Your task to perform on an android device: Search for Italian restaurants on Maps Image 0: 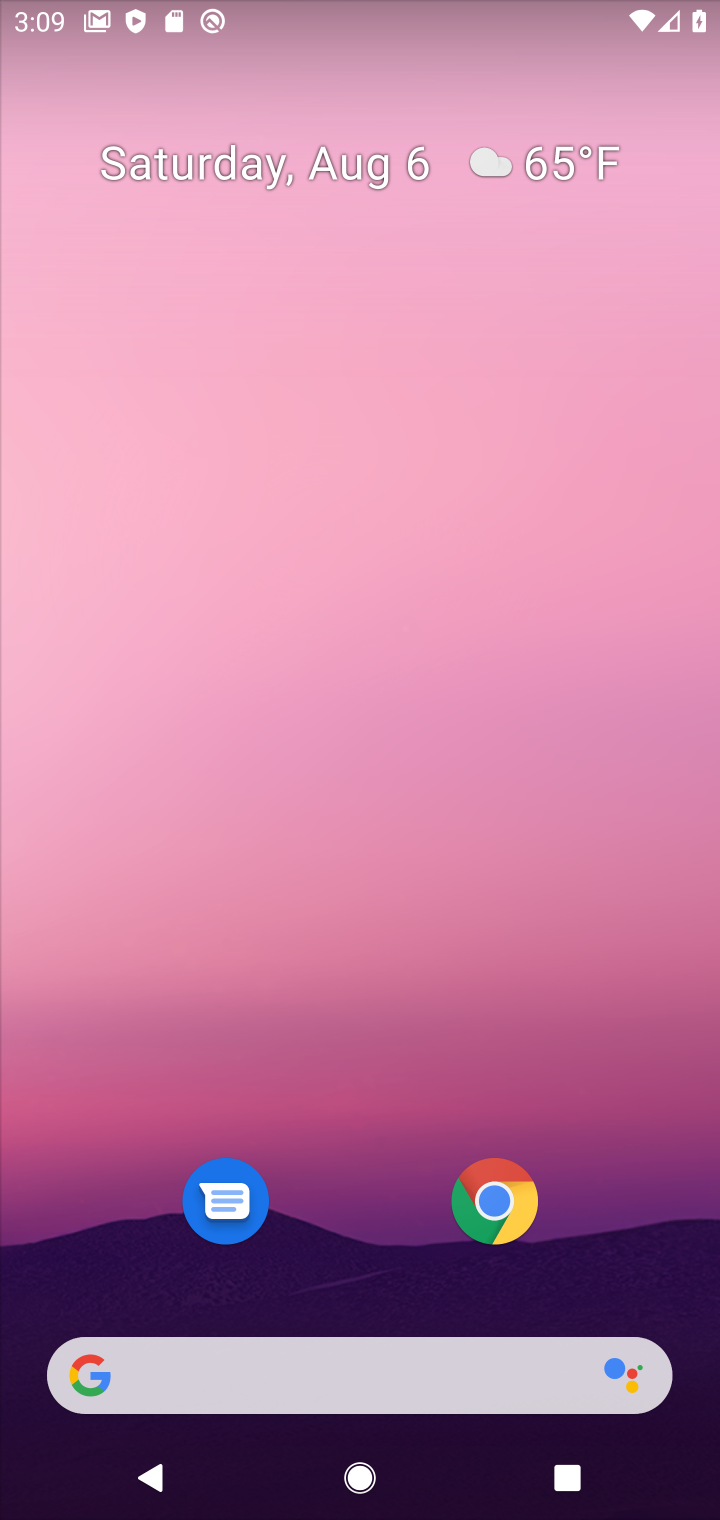
Step 0: drag from (489, 540) to (493, 65)
Your task to perform on an android device: Search for Italian restaurants on Maps Image 1: 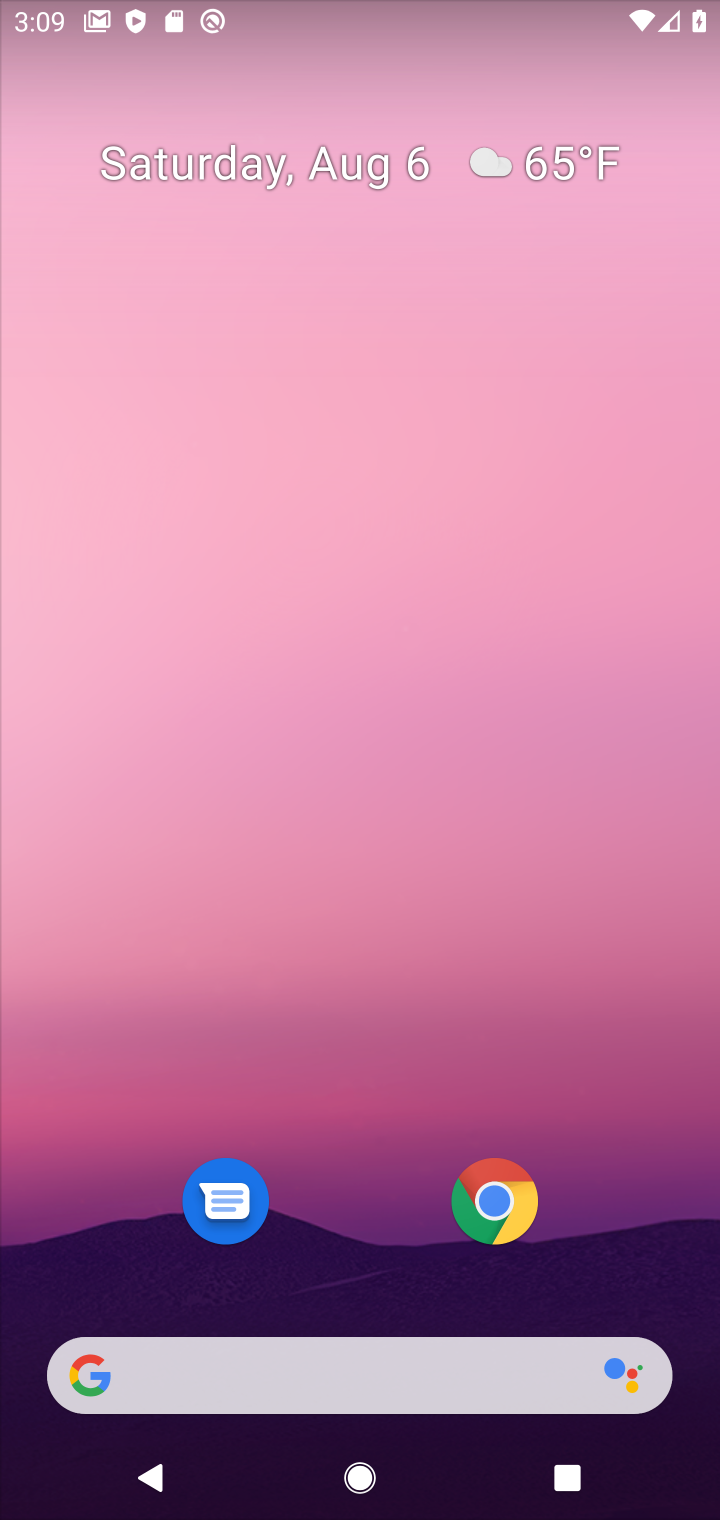
Step 1: drag from (559, 6) to (703, 994)
Your task to perform on an android device: Search for Italian restaurants on Maps Image 2: 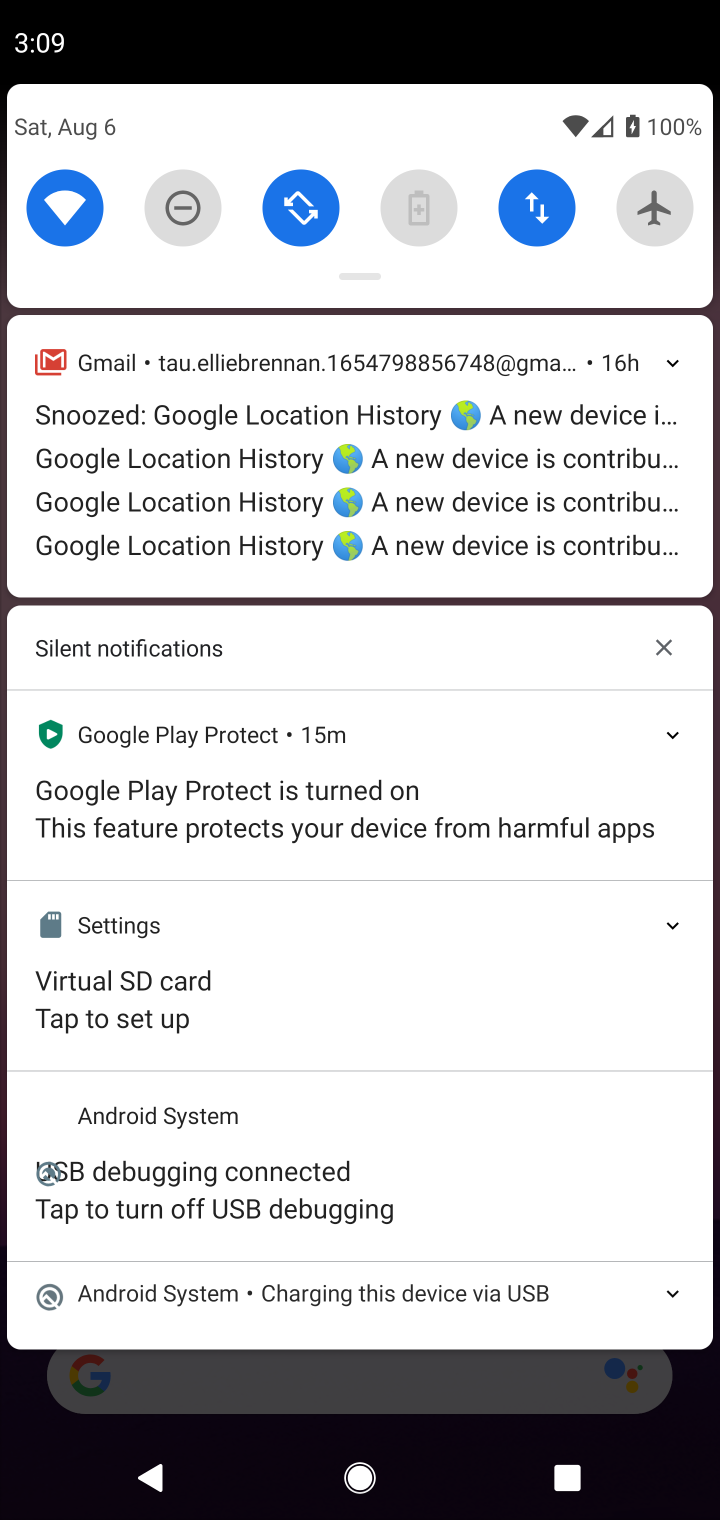
Step 2: drag from (483, 1476) to (703, 602)
Your task to perform on an android device: Search for Italian restaurants on Maps Image 3: 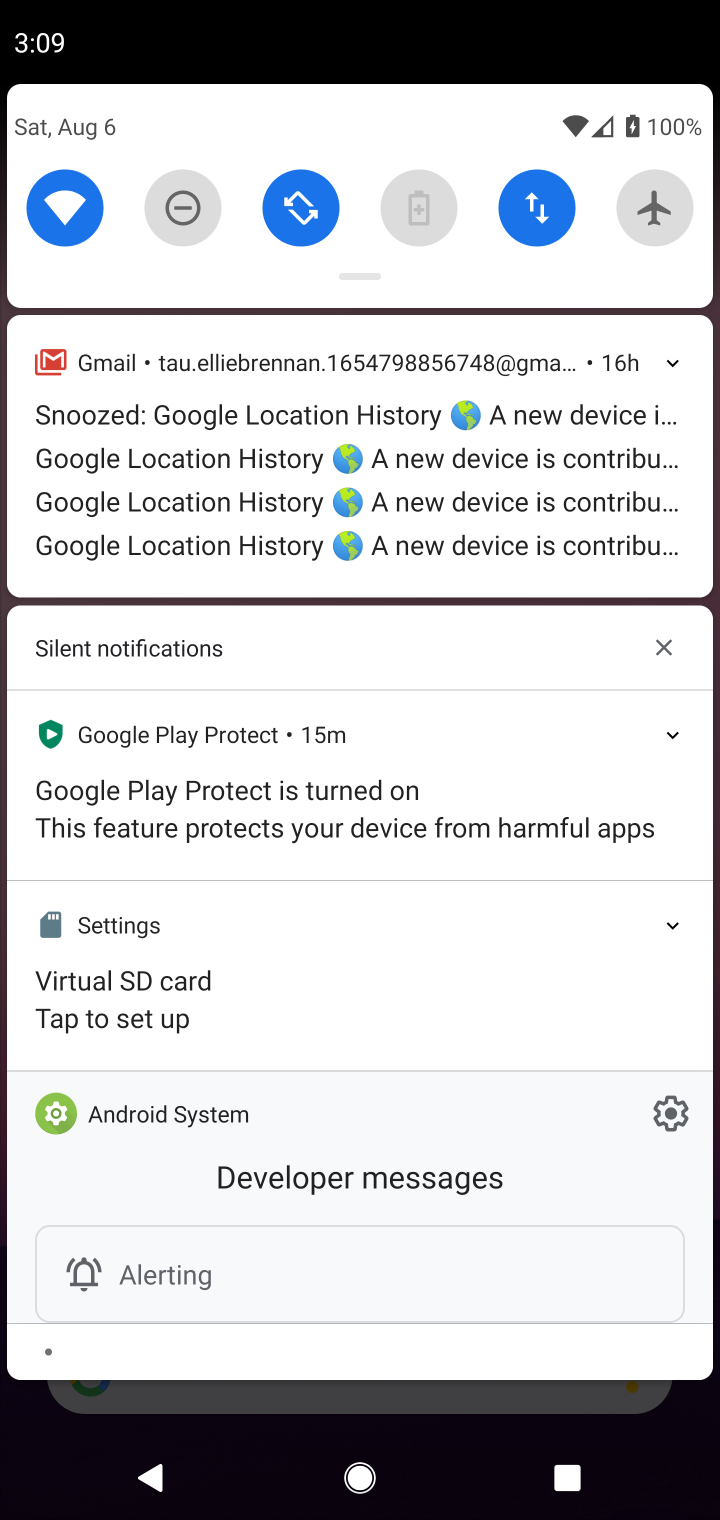
Step 3: press home button
Your task to perform on an android device: Search for Italian restaurants on Maps Image 4: 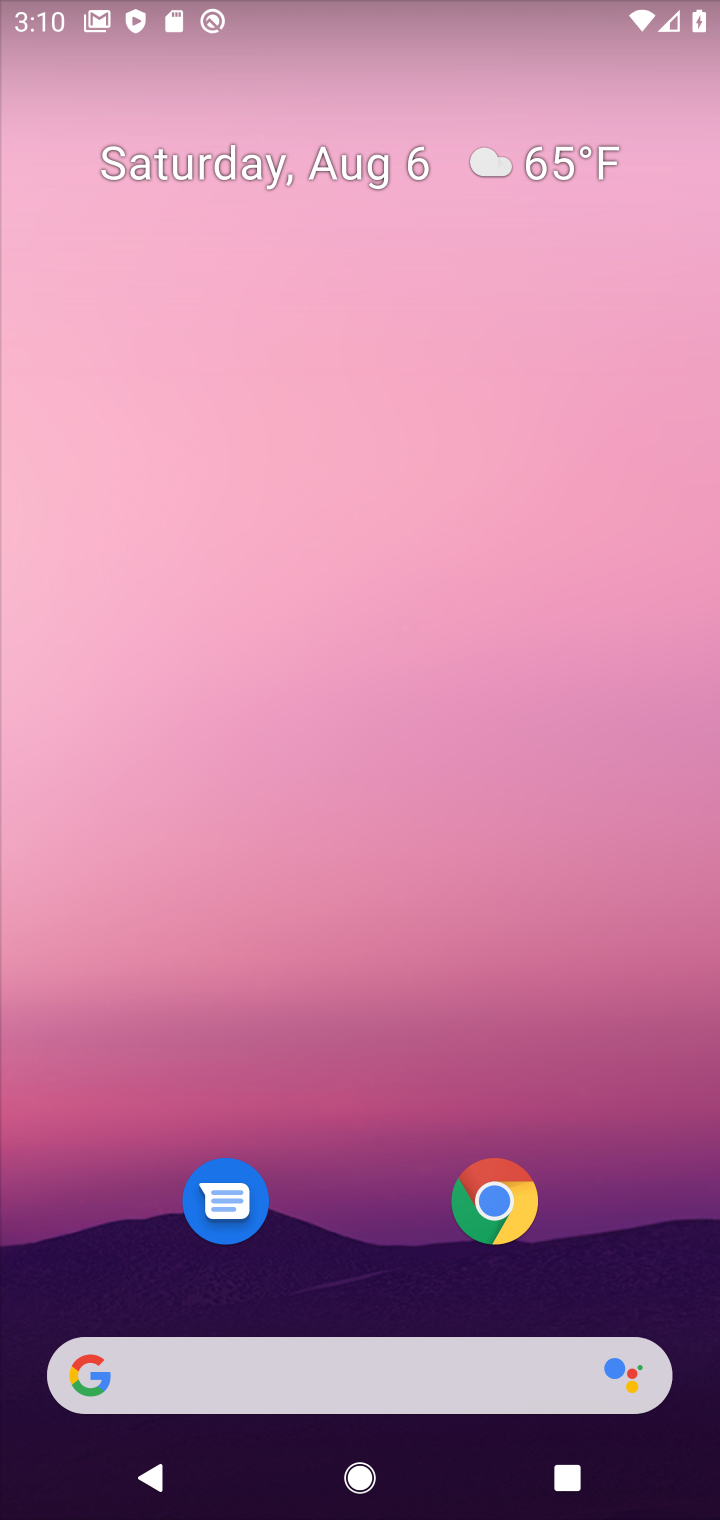
Step 4: drag from (254, 823) to (472, 185)
Your task to perform on an android device: Search for Italian restaurants on Maps Image 5: 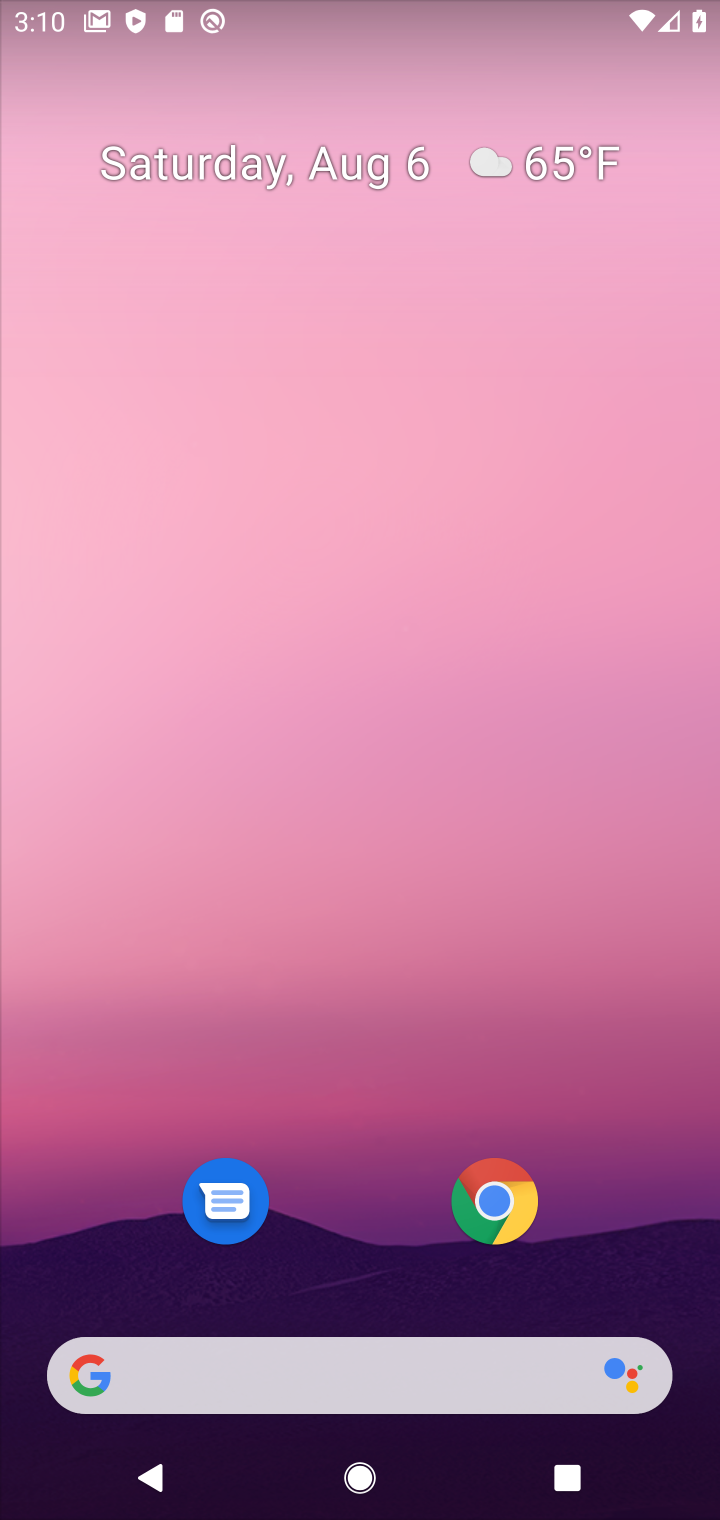
Step 5: drag from (218, 1058) to (528, 294)
Your task to perform on an android device: Search for Italian restaurants on Maps Image 6: 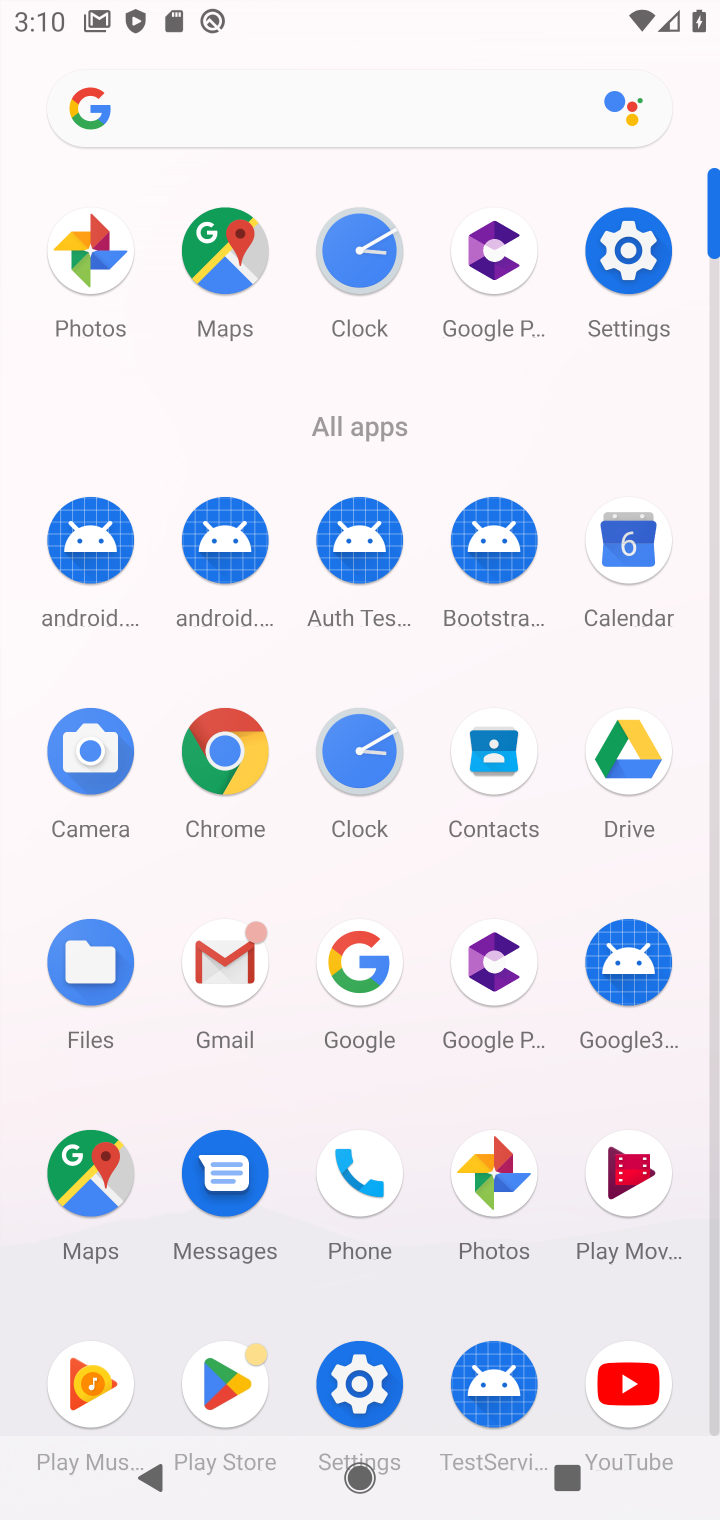
Step 6: click (221, 264)
Your task to perform on an android device: Search for Italian restaurants on Maps Image 7: 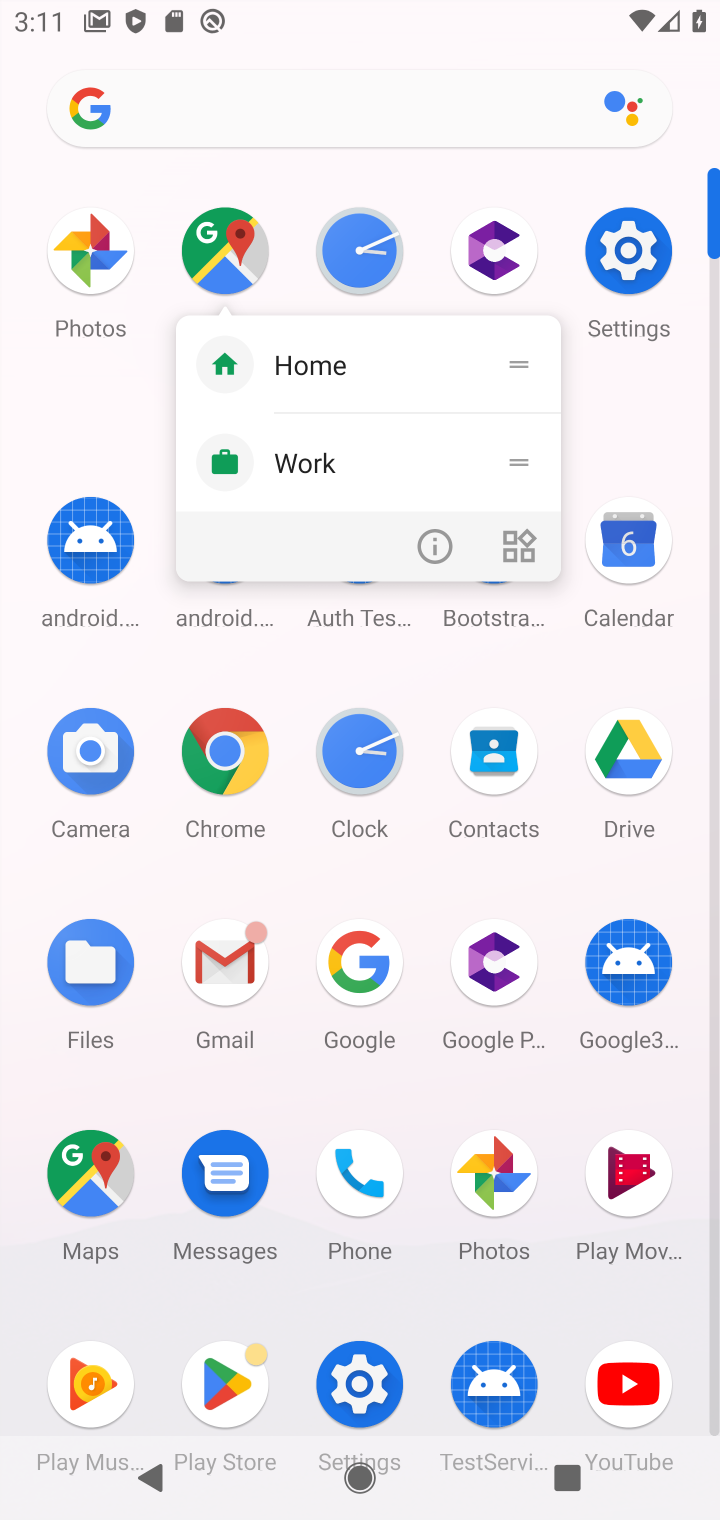
Step 7: click (211, 259)
Your task to perform on an android device: Search for Italian restaurants on Maps Image 8: 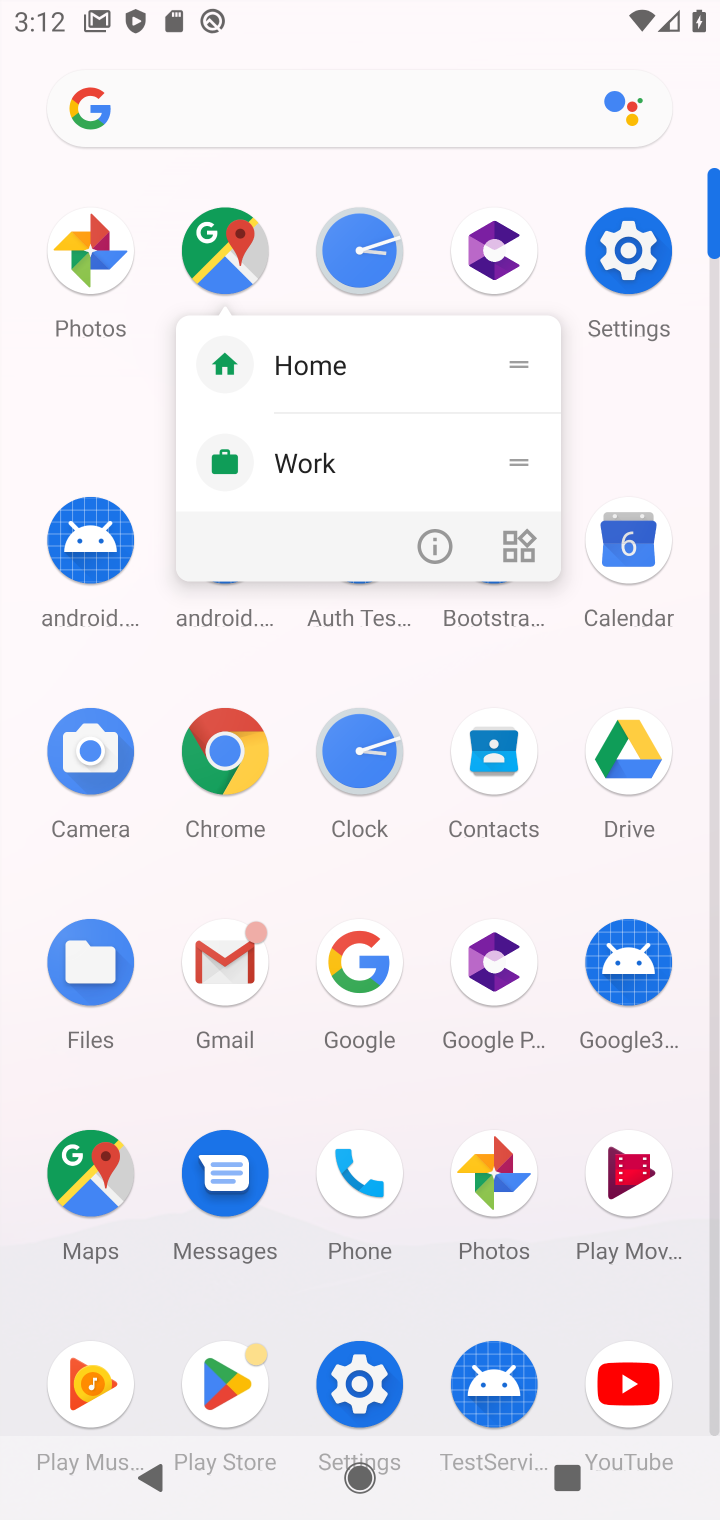
Step 8: click (232, 238)
Your task to perform on an android device: Search for Italian restaurants on Maps Image 9: 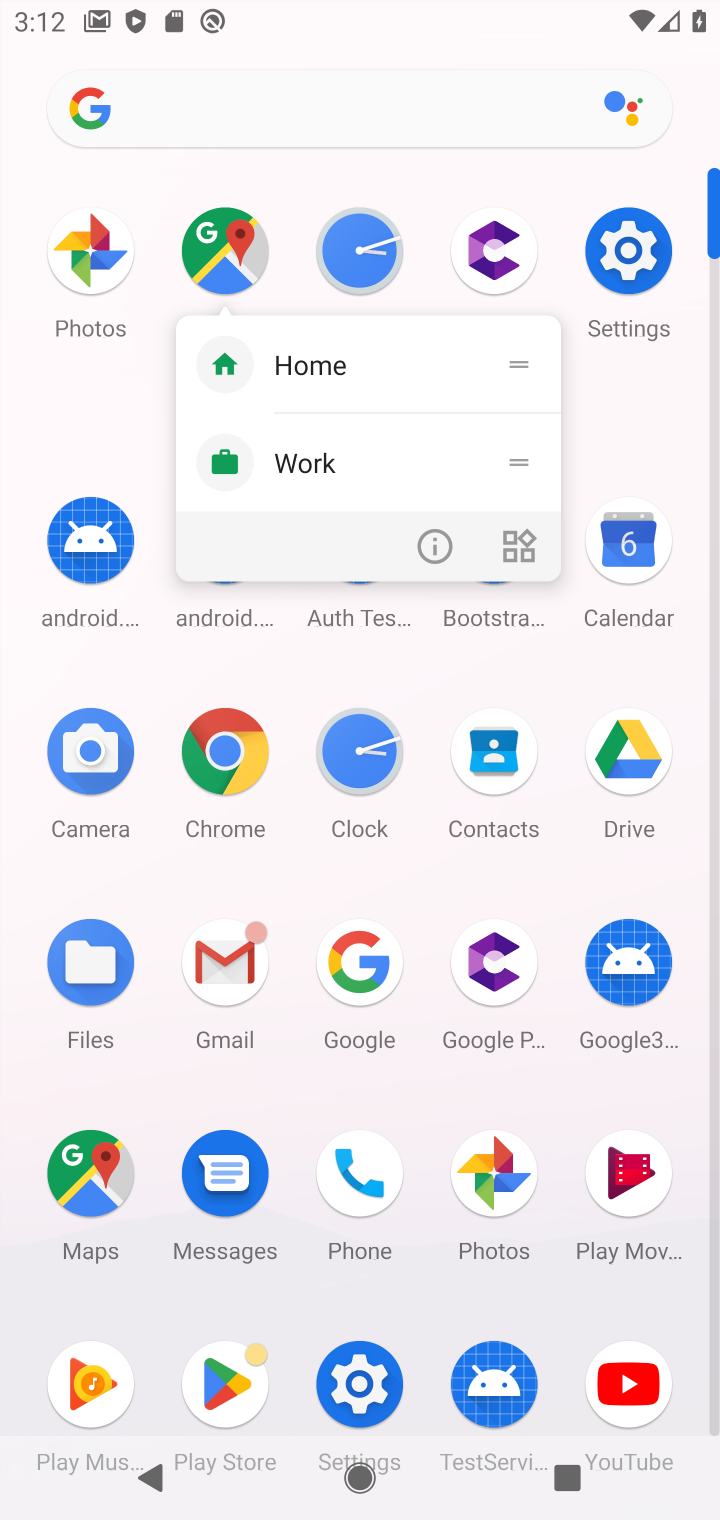
Step 9: click (232, 238)
Your task to perform on an android device: Search for Italian restaurants on Maps Image 10: 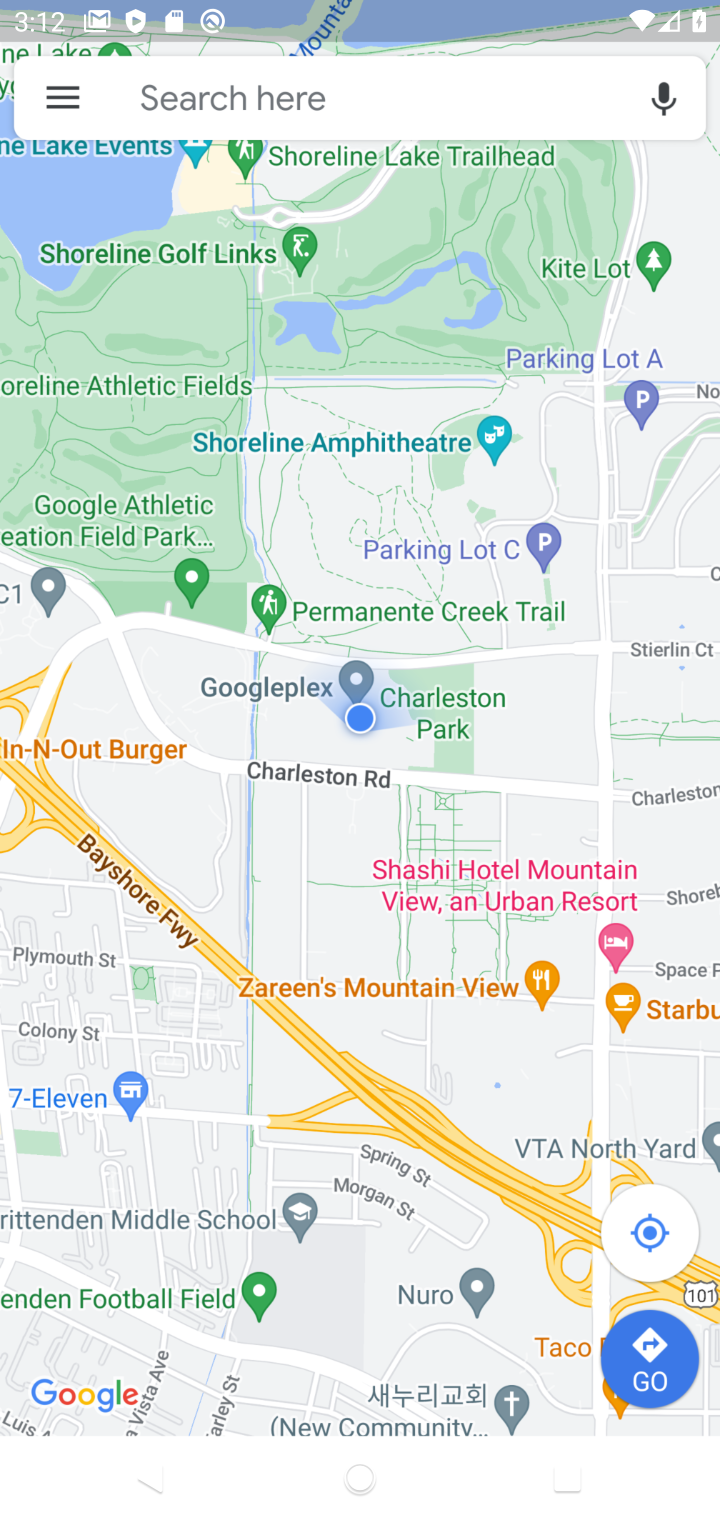
Step 10: click (369, 95)
Your task to perform on an android device: Search for Italian restaurants on Maps Image 11: 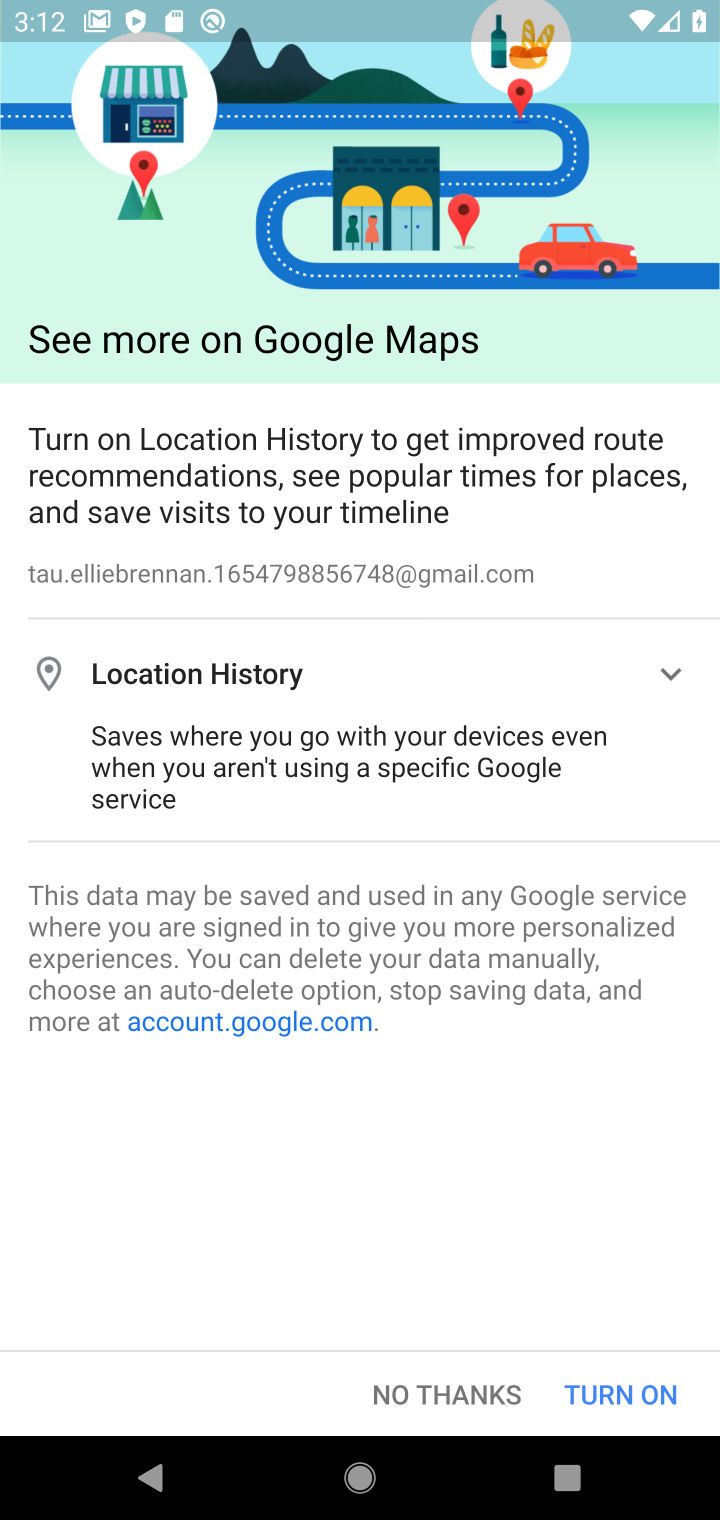
Step 11: type "italian rest"
Your task to perform on an android device: Search for Italian restaurants on Maps Image 12: 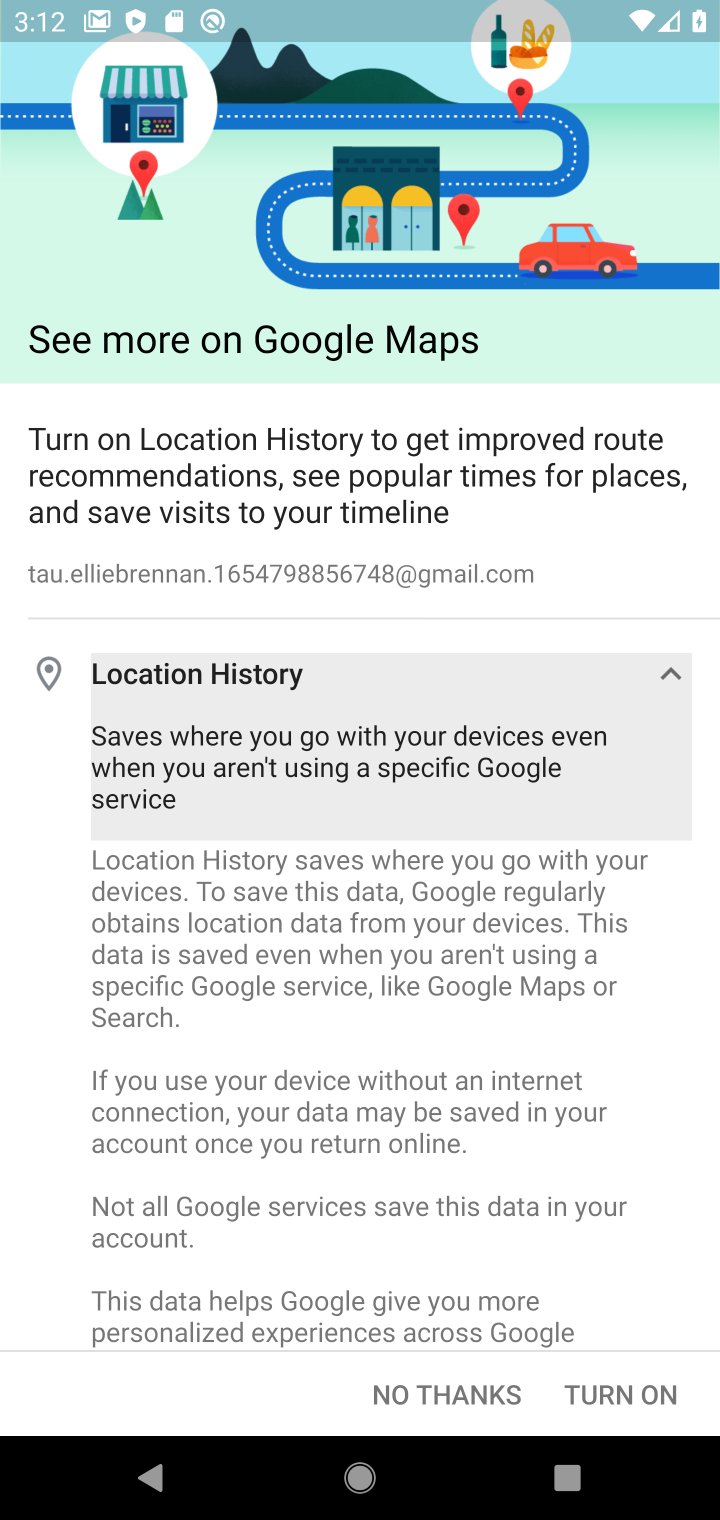
Step 12: click (454, 1402)
Your task to perform on an android device: Search for Italian restaurants on Maps Image 13: 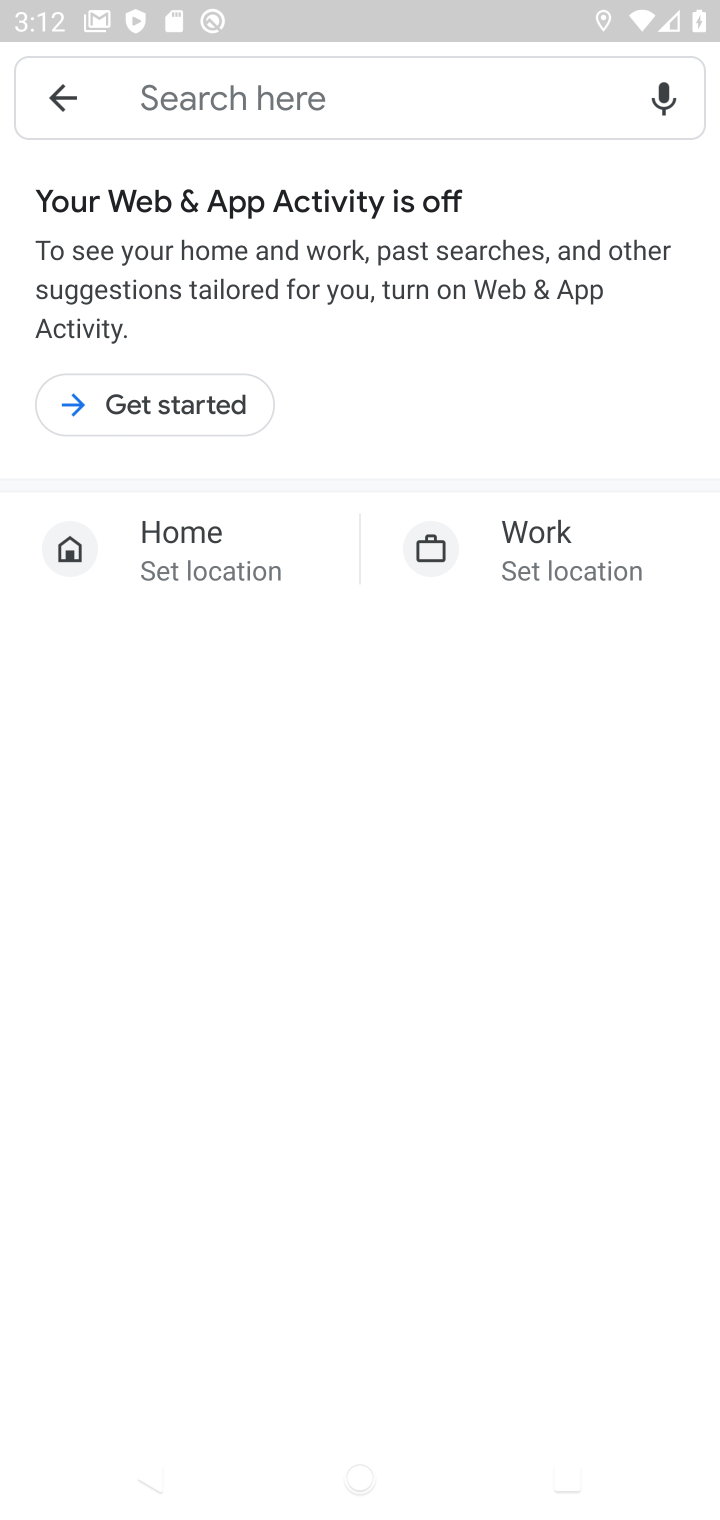
Step 13: click (481, 108)
Your task to perform on an android device: Search for Italian restaurants on Maps Image 14: 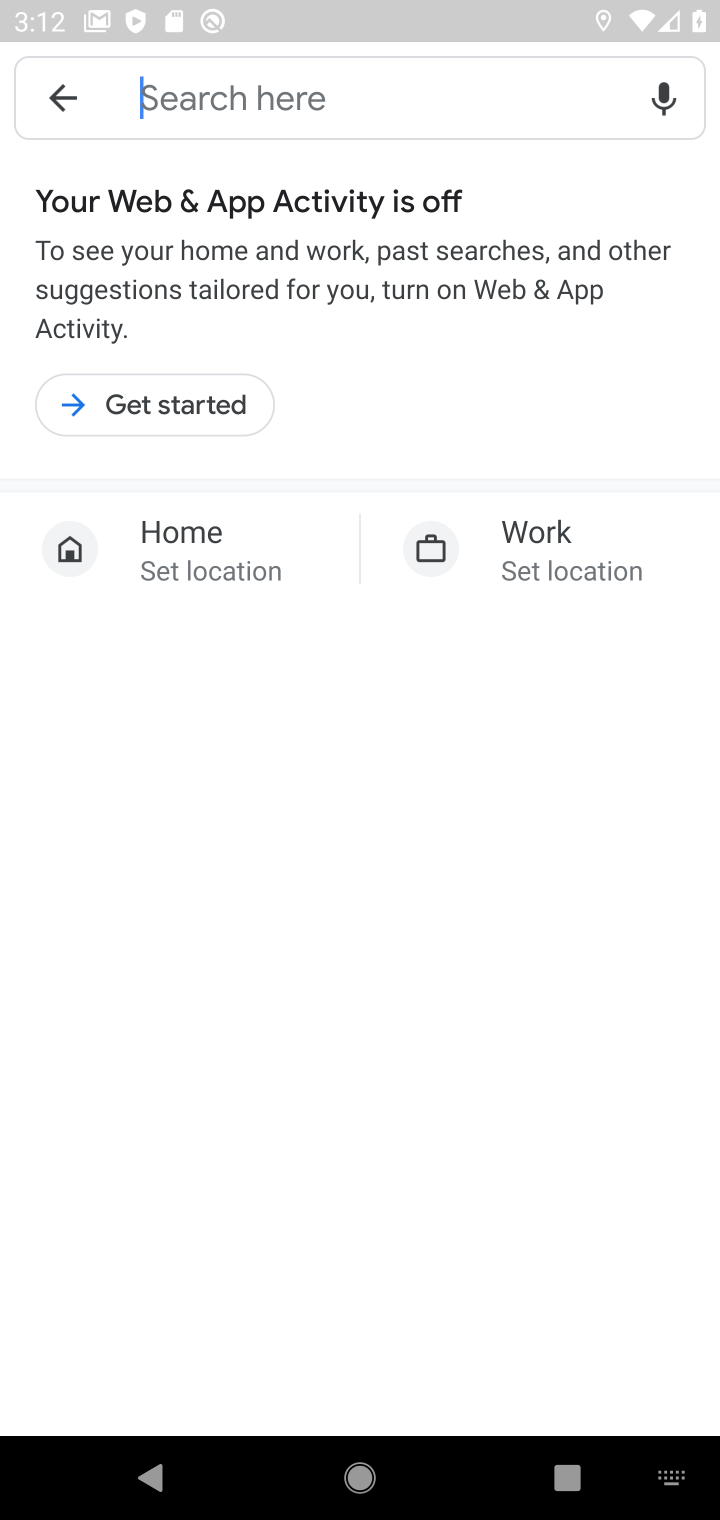
Step 14: type "italian rest"
Your task to perform on an android device: Search for Italian restaurants on Maps Image 15: 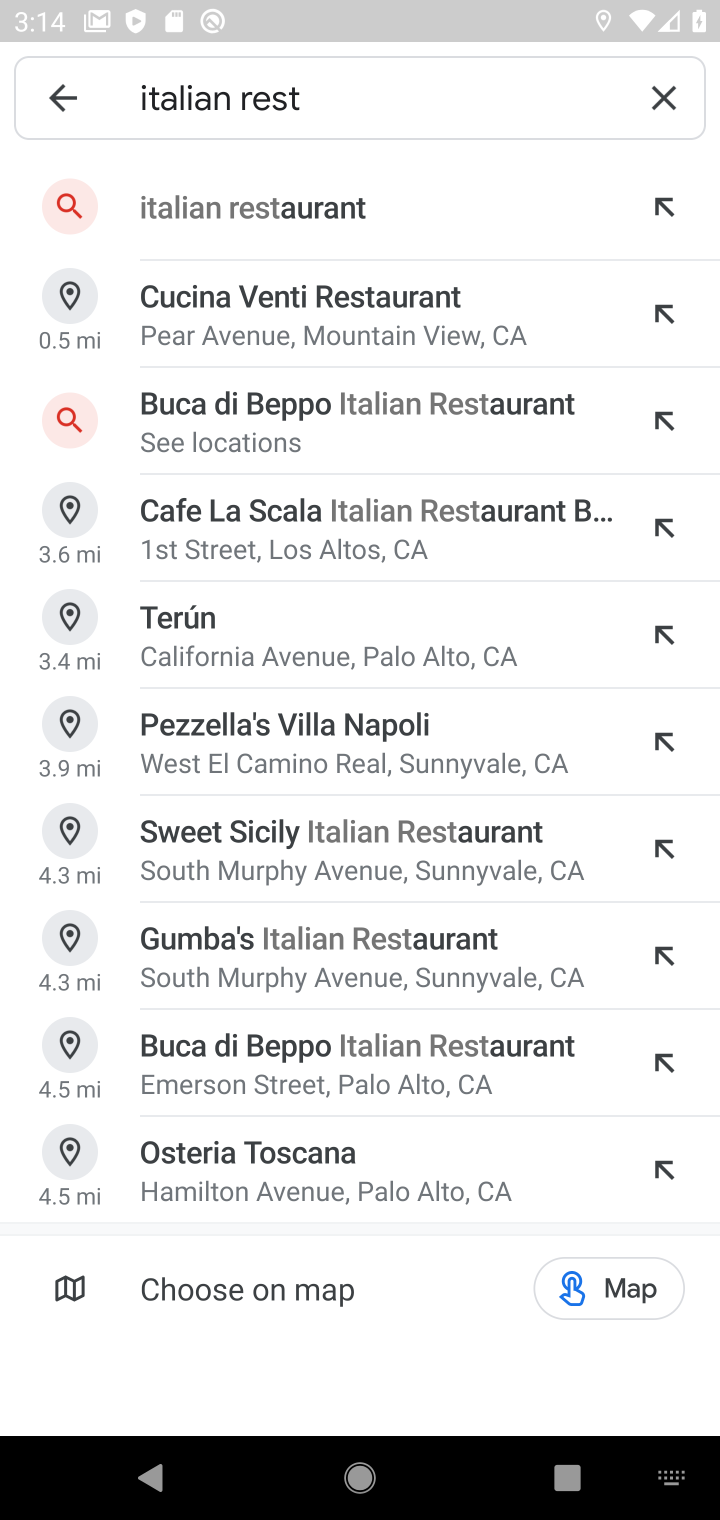
Step 15: click (268, 215)
Your task to perform on an android device: Search for Italian restaurants on Maps Image 16: 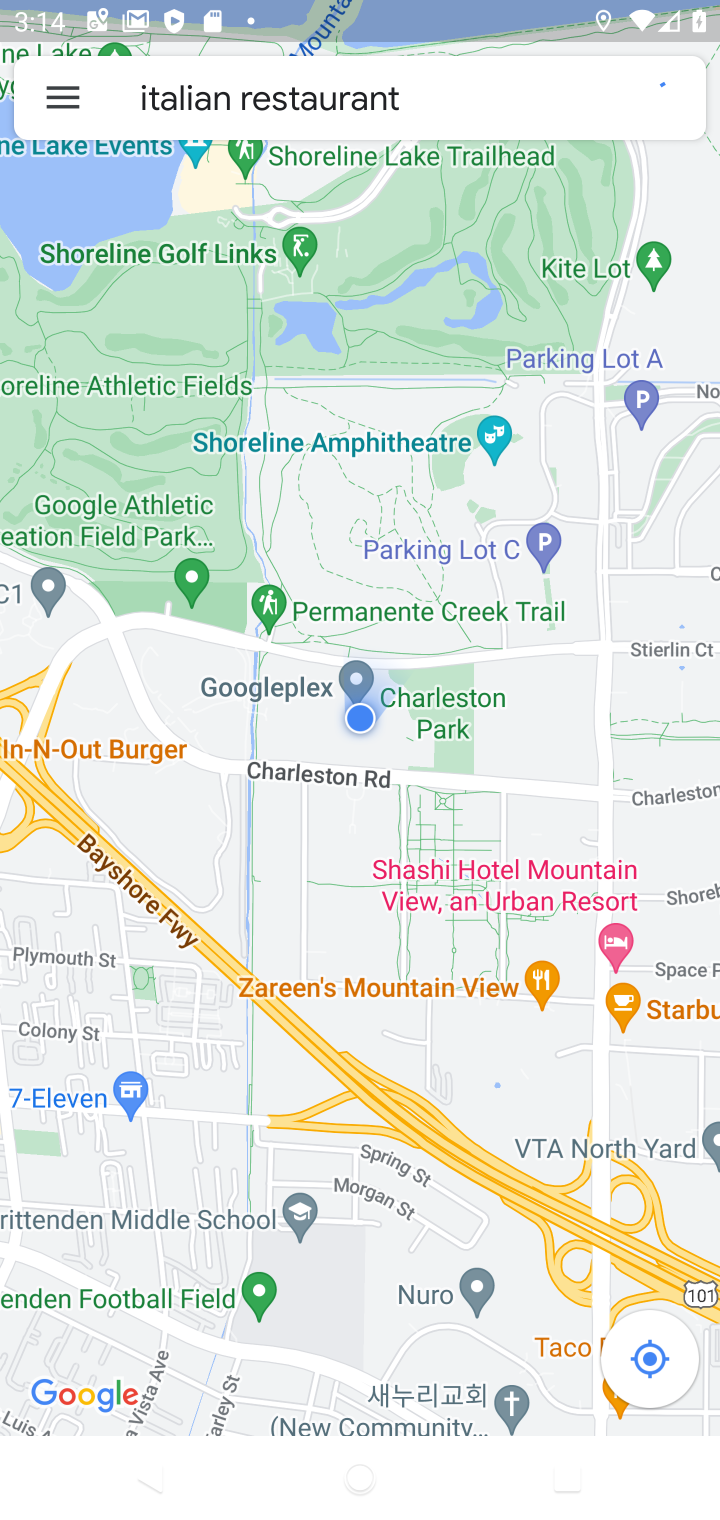
Step 16: task complete